Your task to perform on an android device: Search for vegetarian restaurants on Maps Image 0: 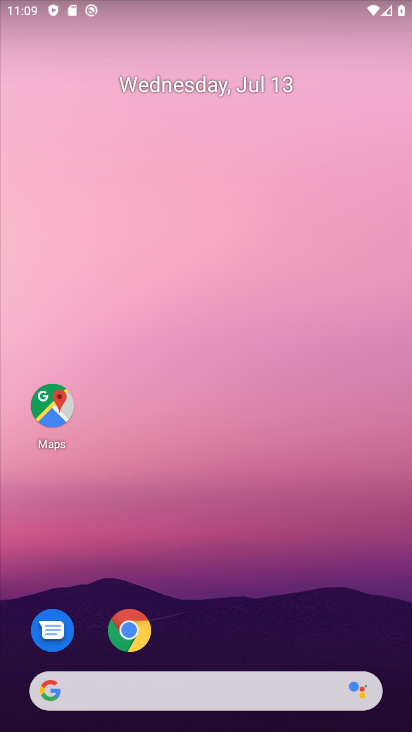
Step 0: drag from (321, 626) to (353, 197)
Your task to perform on an android device: Search for vegetarian restaurants on Maps Image 1: 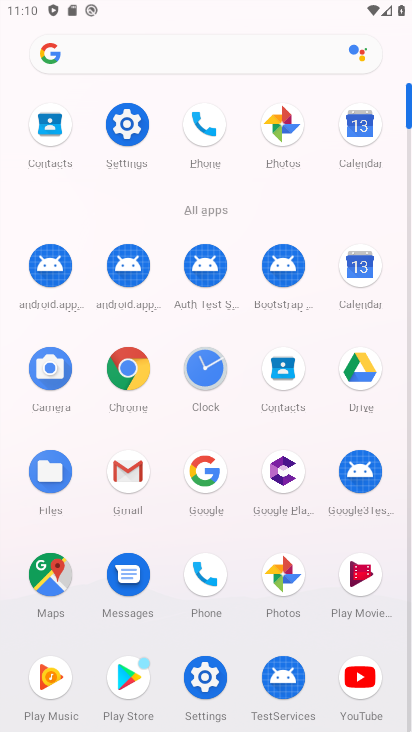
Step 1: click (52, 575)
Your task to perform on an android device: Search for vegetarian restaurants on Maps Image 2: 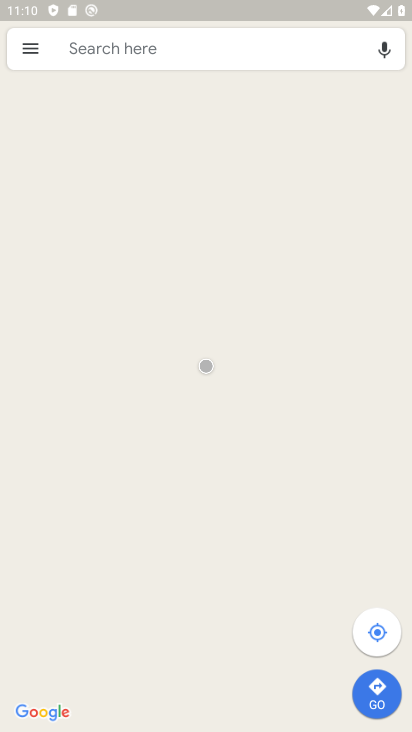
Step 2: click (185, 51)
Your task to perform on an android device: Search for vegetarian restaurants on Maps Image 3: 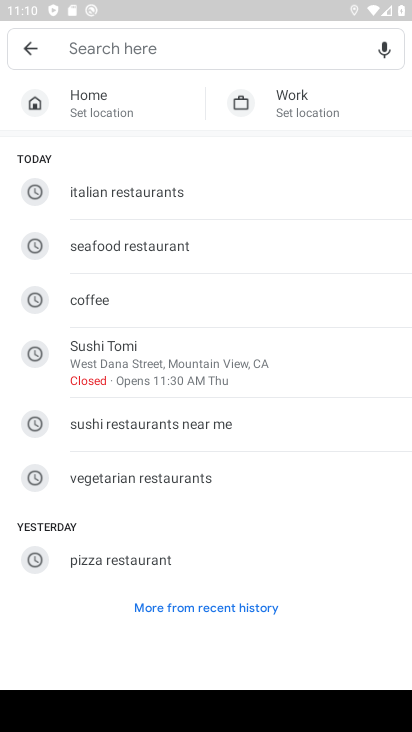
Step 3: type "vegetrain restaujrans"
Your task to perform on an android device: Search for vegetarian restaurants on Maps Image 4: 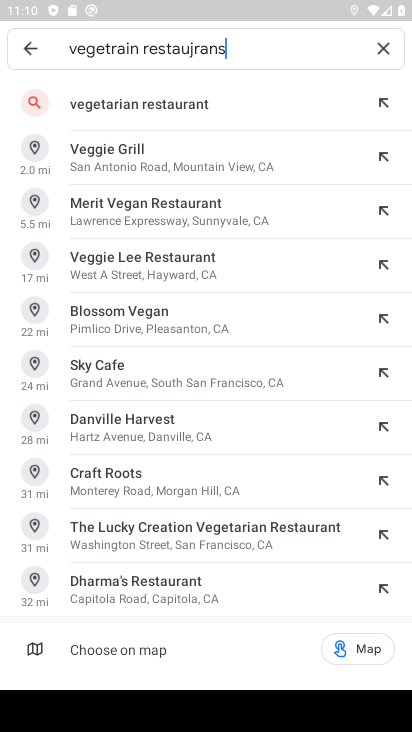
Step 4: click (172, 108)
Your task to perform on an android device: Search for vegetarian restaurants on Maps Image 5: 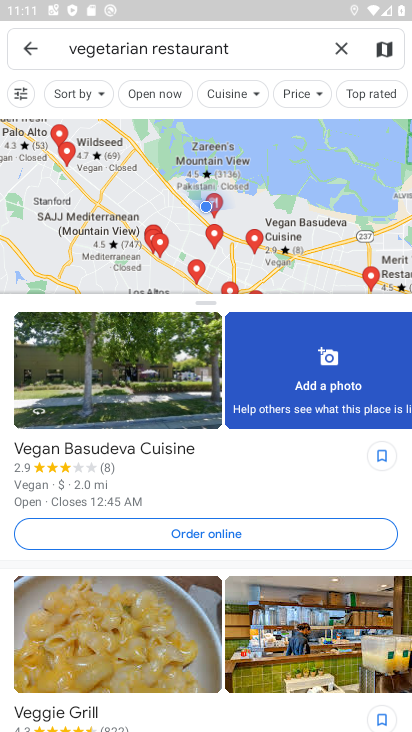
Step 5: task complete